Your task to perform on an android device: see tabs open on other devices in the chrome app Image 0: 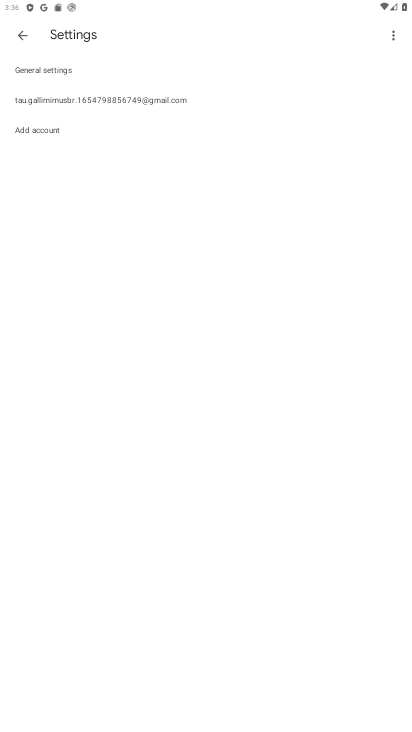
Step 0: press home button
Your task to perform on an android device: see tabs open on other devices in the chrome app Image 1: 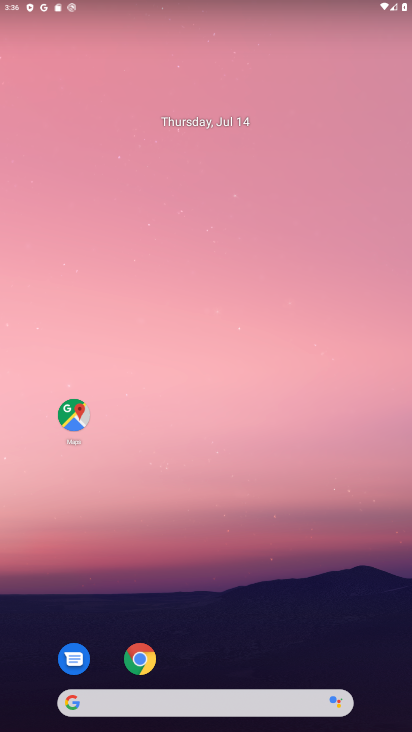
Step 1: drag from (343, 597) to (360, 308)
Your task to perform on an android device: see tabs open on other devices in the chrome app Image 2: 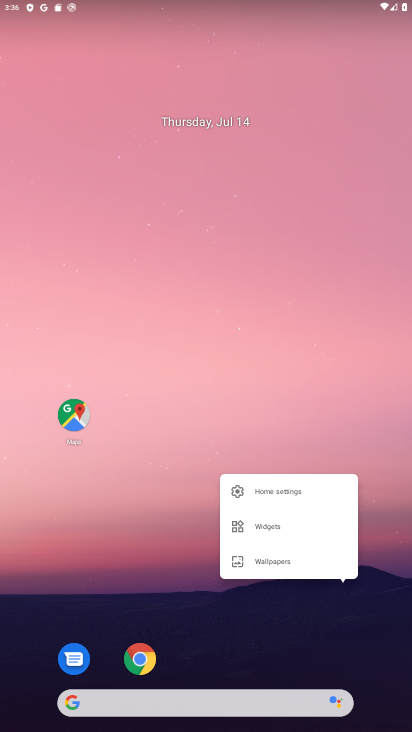
Step 2: click (374, 354)
Your task to perform on an android device: see tabs open on other devices in the chrome app Image 3: 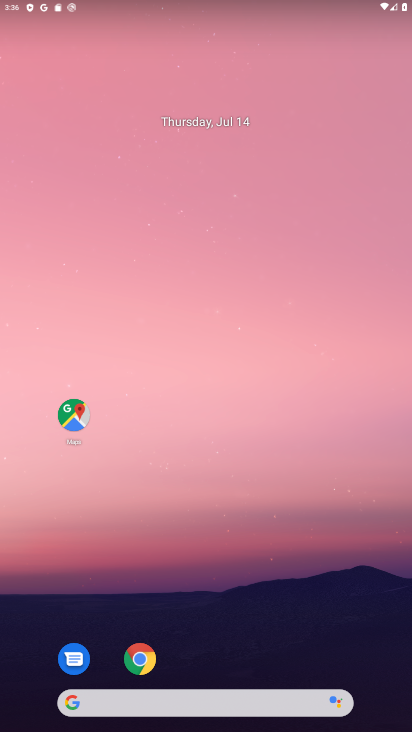
Step 3: drag from (325, 620) to (328, 118)
Your task to perform on an android device: see tabs open on other devices in the chrome app Image 4: 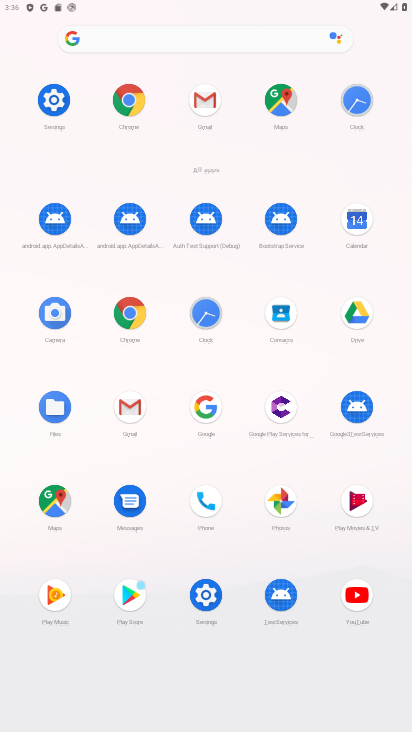
Step 4: click (128, 311)
Your task to perform on an android device: see tabs open on other devices in the chrome app Image 5: 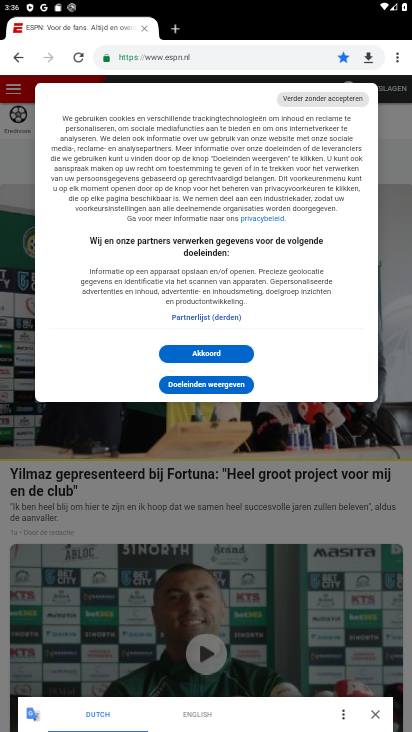
Step 5: click (396, 58)
Your task to perform on an android device: see tabs open on other devices in the chrome app Image 6: 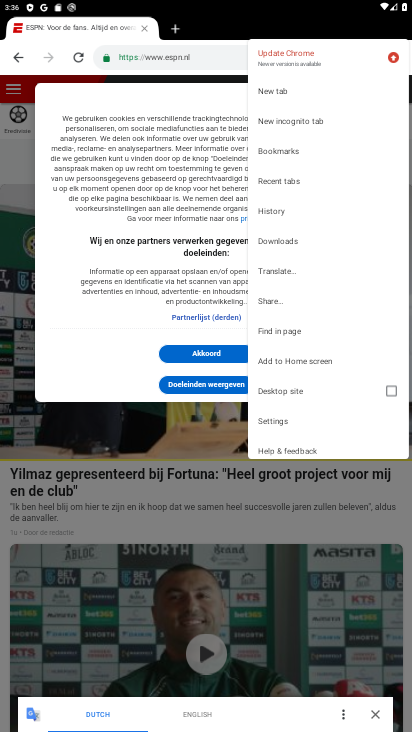
Step 6: click (303, 181)
Your task to perform on an android device: see tabs open on other devices in the chrome app Image 7: 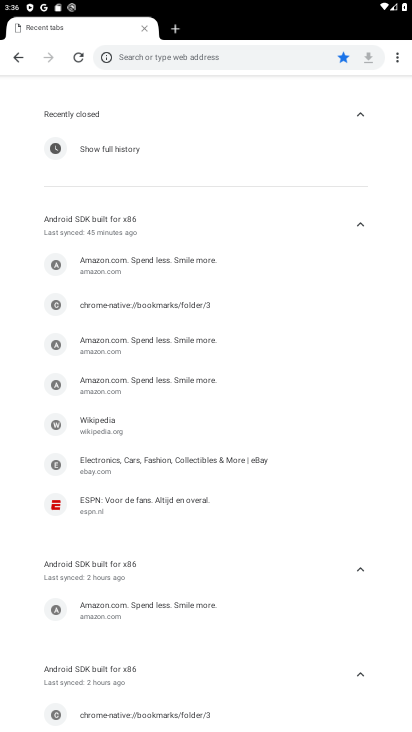
Step 7: click (367, 60)
Your task to perform on an android device: see tabs open on other devices in the chrome app Image 8: 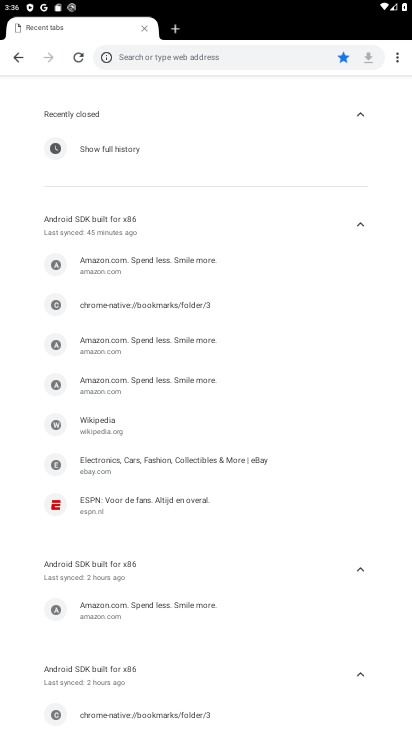
Step 8: task complete